Your task to perform on an android device: Open the web browser Image 0: 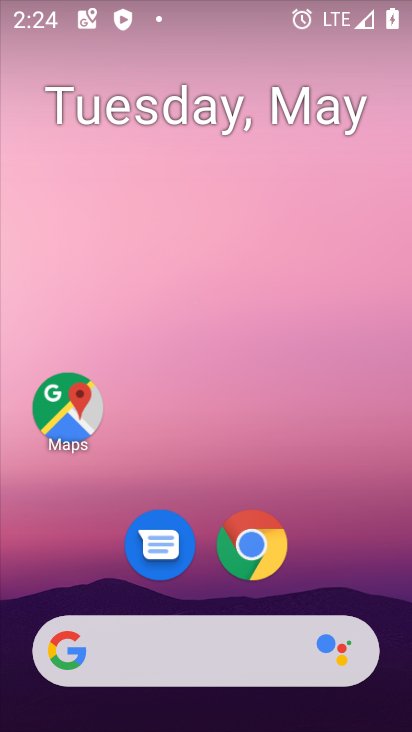
Step 0: drag from (371, 556) to (236, 10)
Your task to perform on an android device: Open the web browser Image 1: 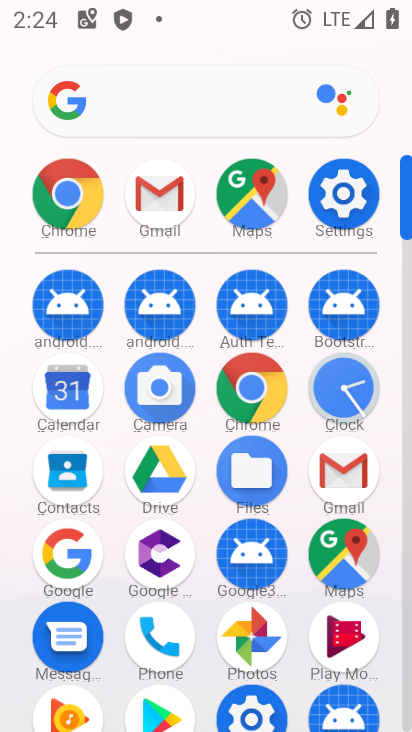
Step 1: drag from (7, 524) to (1, 256)
Your task to perform on an android device: Open the web browser Image 2: 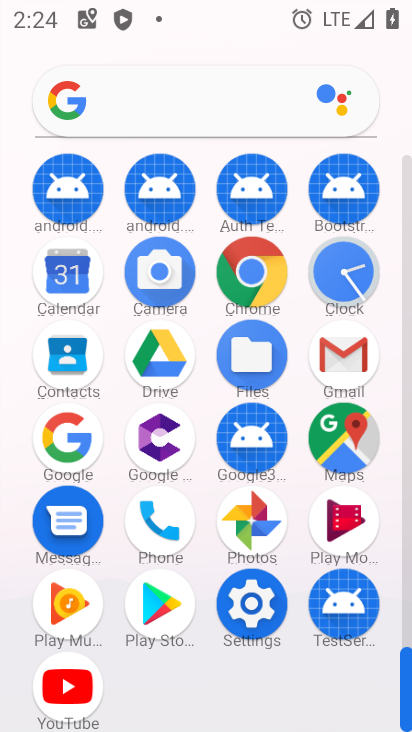
Step 2: click (255, 264)
Your task to perform on an android device: Open the web browser Image 3: 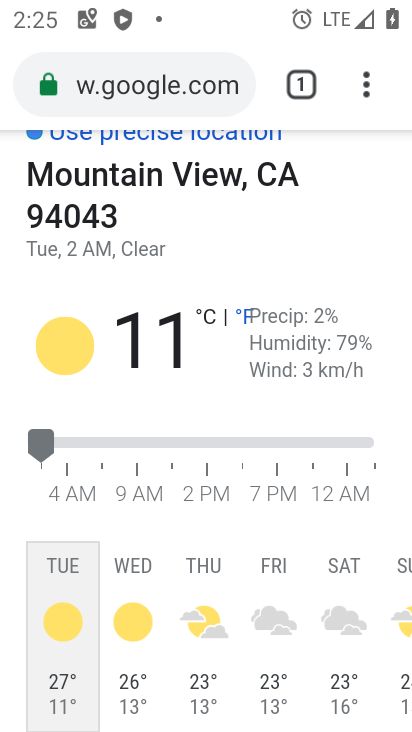
Step 3: task complete